Your task to perform on an android device: stop showing notifications on the lock screen Image 0: 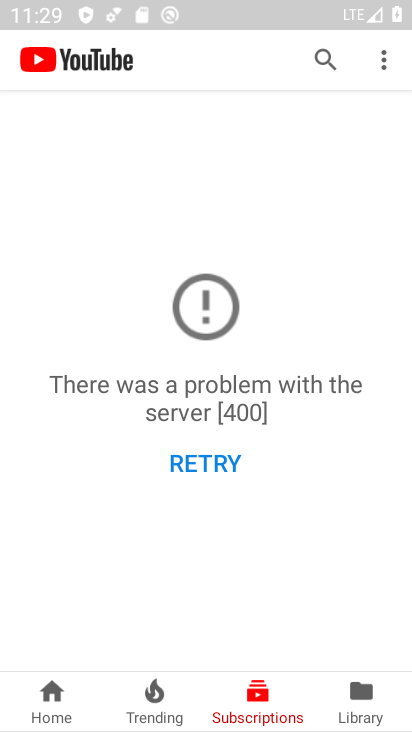
Step 0: press home button
Your task to perform on an android device: stop showing notifications on the lock screen Image 1: 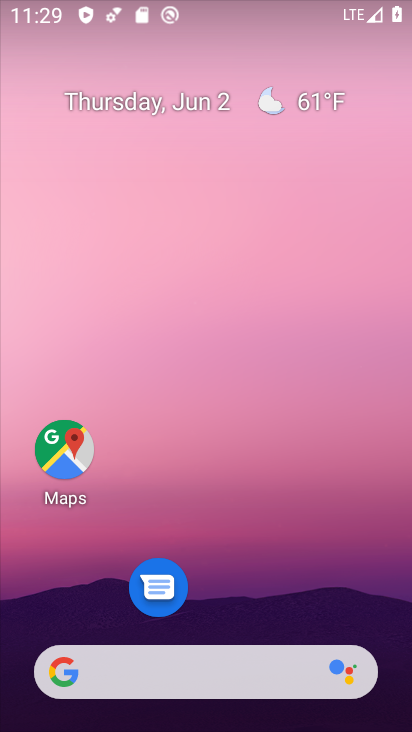
Step 1: drag from (203, 616) to (164, 244)
Your task to perform on an android device: stop showing notifications on the lock screen Image 2: 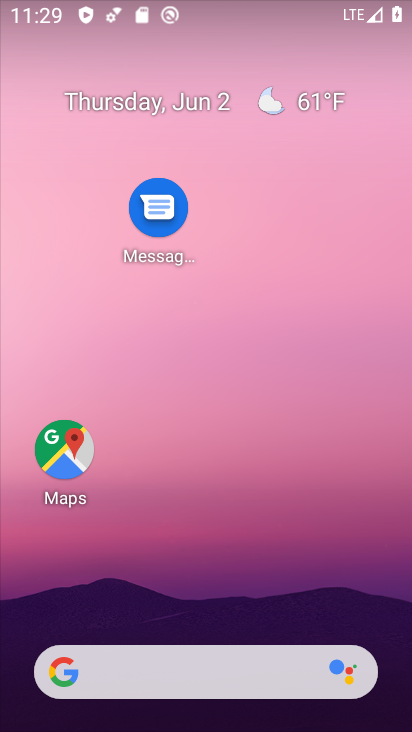
Step 2: drag from (205, 571) to (283, 23)
Your task to perform on an android device: stop showing notifications on the lock screen Image 3: 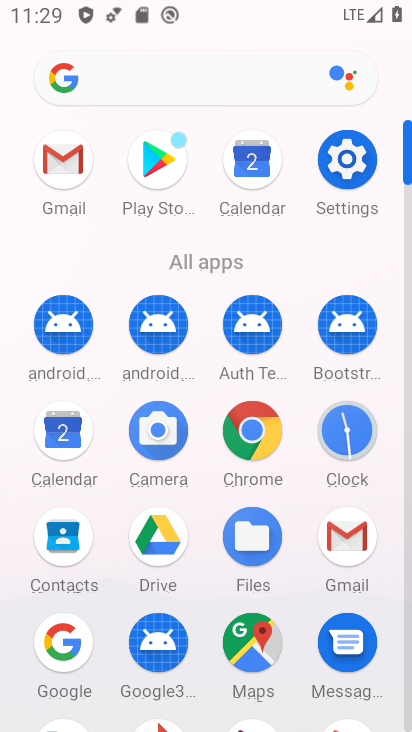
Step 3: click (338, 172)
Your task to perform on an android device: stop showing notifications on the lock screen Image 4: 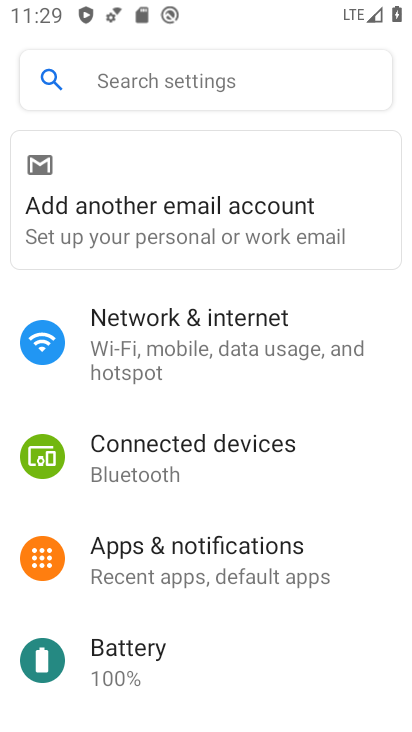
Step 4: drag from (246, 557) to (222, 33)
Your task to perform on an android device: stop showing notifications on the lock screen Image 5: 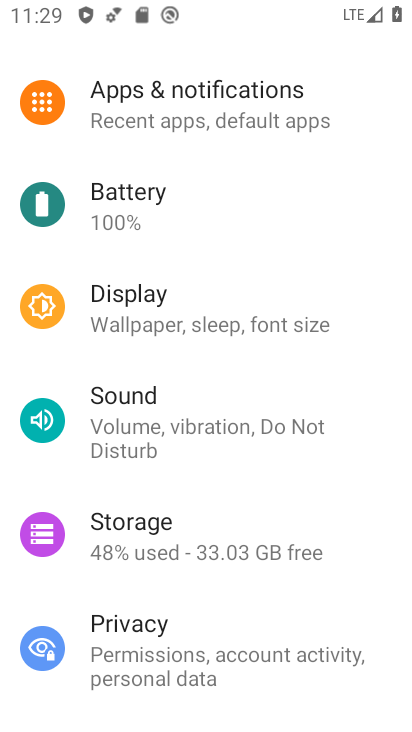
Step 5: click (206, 122)
Your task to perform on an android device: stop showing notifications on the lock screen Image 6: 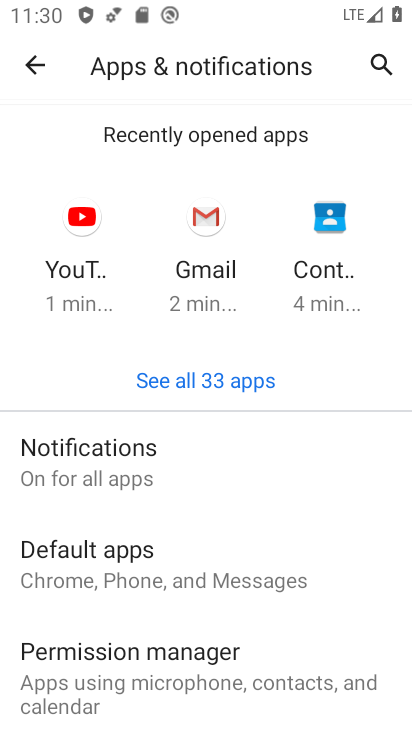
Step 6: click (116, 479)
Your task to perform on an android device: stop showing notifications on the lock screen Image 7: 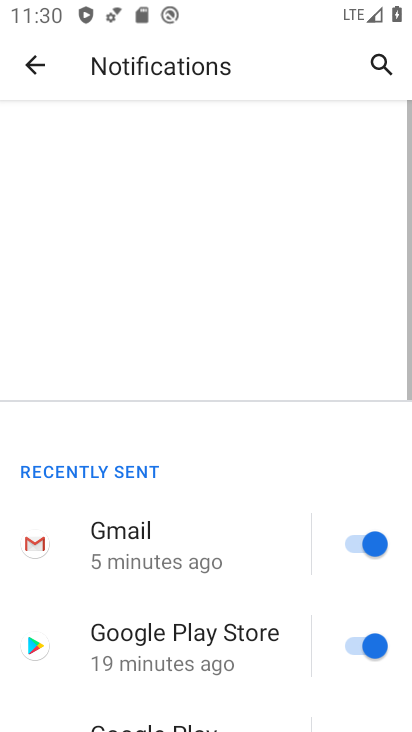
Step 7: drag from (249, 651) to (207, 17)
Your task to perform on an android device: stop showing notifications on the lock screen Image 8: 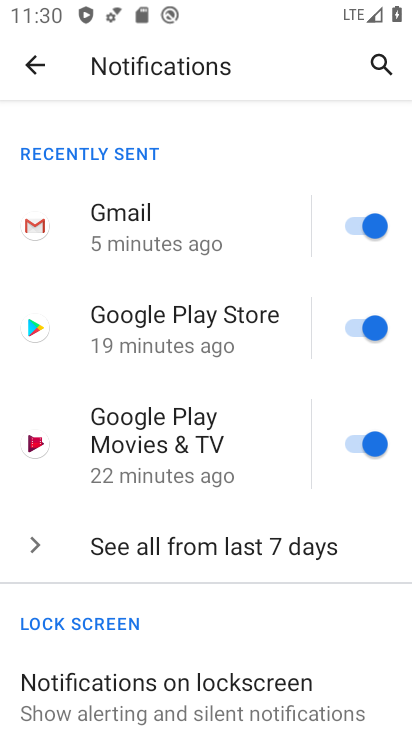
Step 8: click (194, 694)
Your task to perform on an android device: stop showing notifications on the lock screen Image 9: 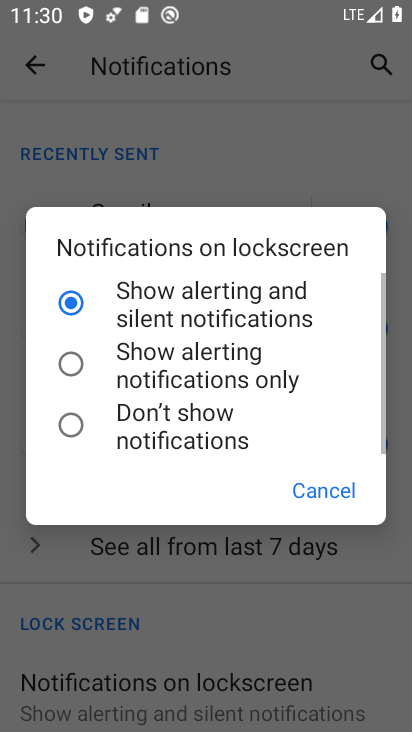
Step 9: click (176, 449)
Your task to perform on an android device: stop showing notifications on the lock screen Image 10: 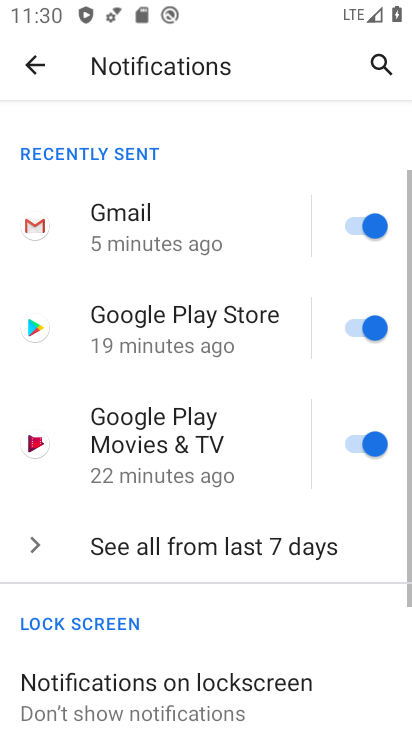
Step 10: task complete